Your task to perform on an android device: Open settings Image 0: 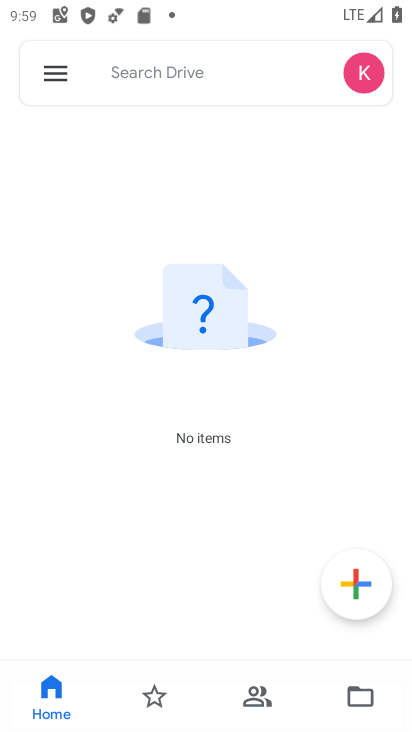
Step 0: press home button
Your task to perform on an android device: Open settings Image 1: 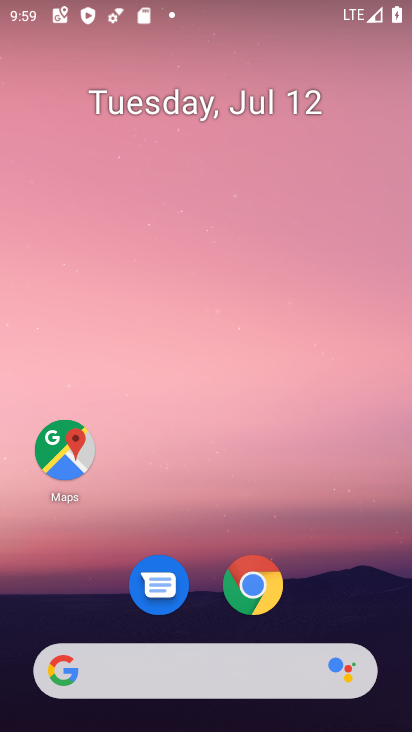
Step 1: drag from (197, 665) to (288, 110)
Your task to perform on an android device: Open settings Image 2: 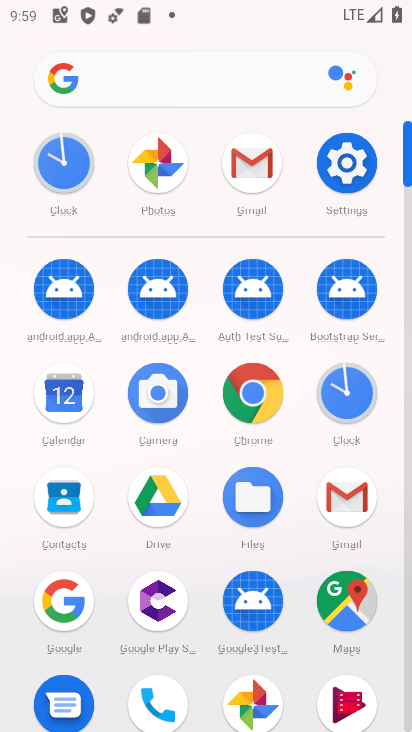
Step 2: click (350, 168)
Your task to perform on an android device: Open settings Image 3: 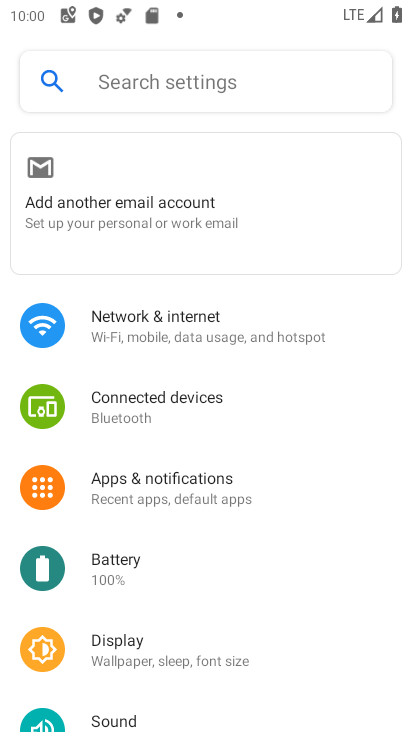
Step 3: task complete